Your task to perform on an android device: Open calendar and show me the third week of next month Image 0: 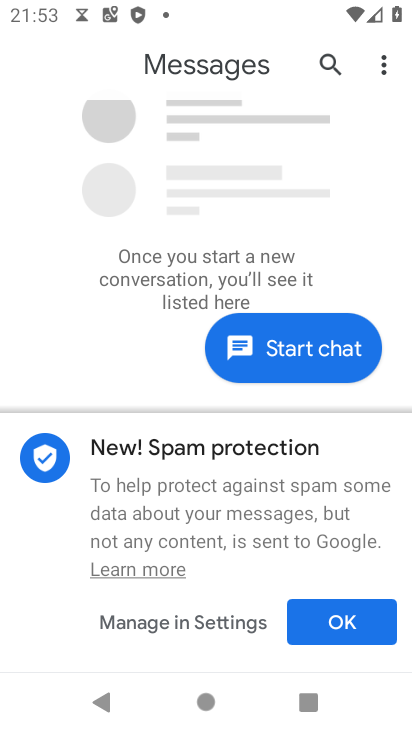
Step 0: press home button
Your task to perform on an android device: Open calendar and show me the third week of next month Image 1: 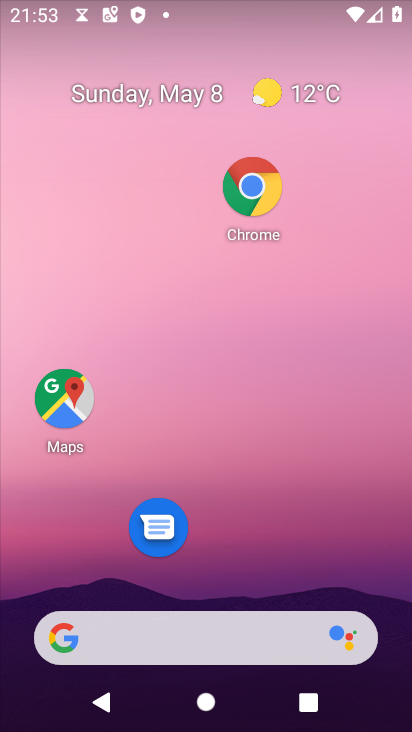
Step 1: drag from (321, 321) to (339, 191)
Your task to perform on an android device: Open calendar and show me the third week of next month Image 2: 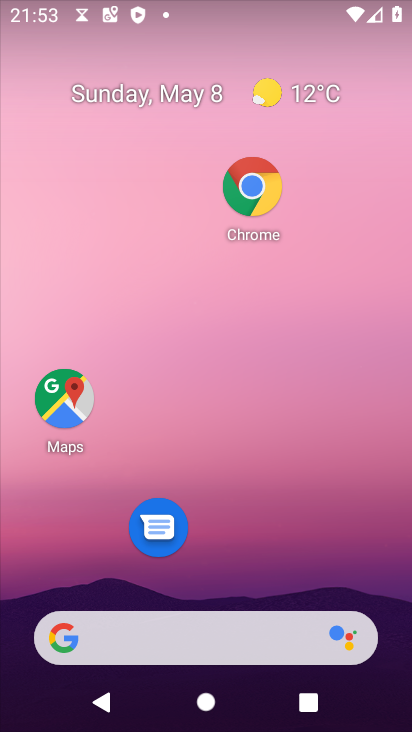
Step 2: drag from (283, 501) to (305, 199)
Your task to perform on an android device: Open calendar and show me the third week of next month Image 3: 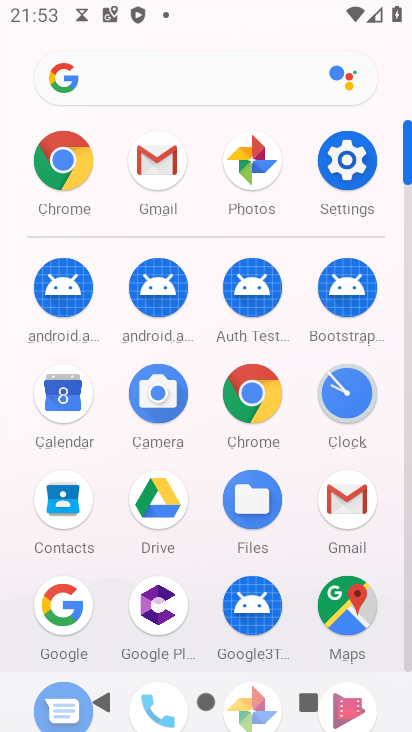
Step 3: click (70, 395)
Your task to perform on an android device: Open calendar and show me the third week of next month Image 4: 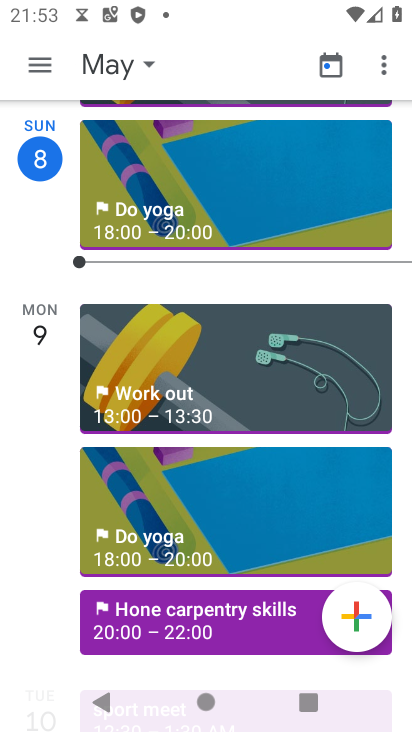
Step 4: click (37, 58)
Your task to perform on an android device: Open calendar and show me the third week of next month Image 5: 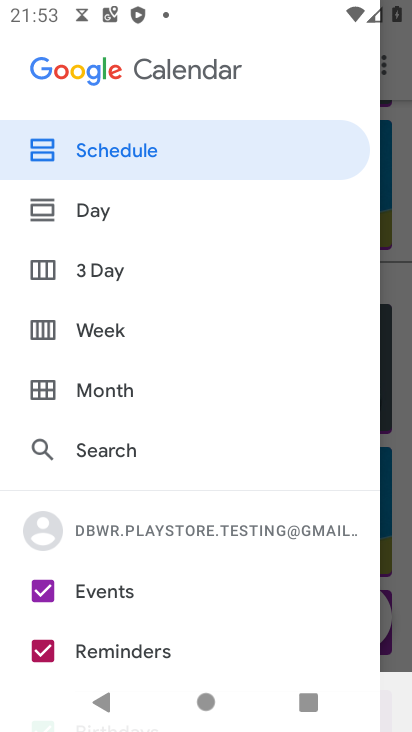
Step 5: click (99, 384)
Your task to perform on an android device: Open calendar and show me the third week of next month Image 6: 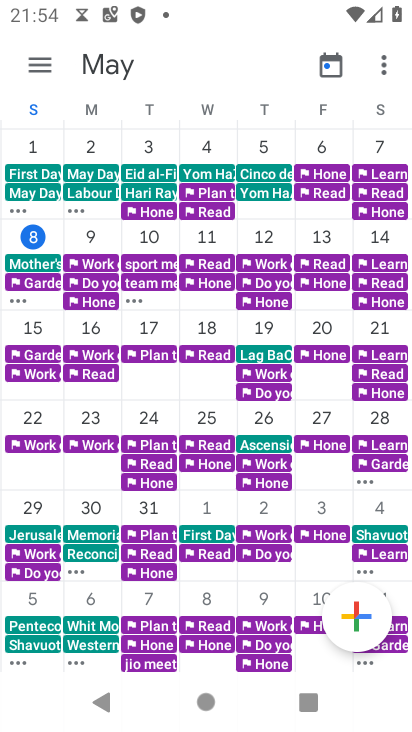
Step 6: click (34, 335)
Your task to perform on an android device: Open calendar and show me the third week of next month Image 7: 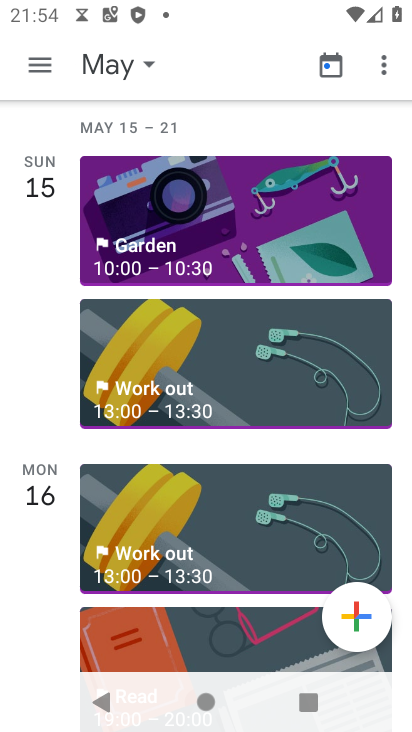
Step 7: click (33, 63)
Your task to perform on an android device: Open calendar and show me the third week of next month Image 8: 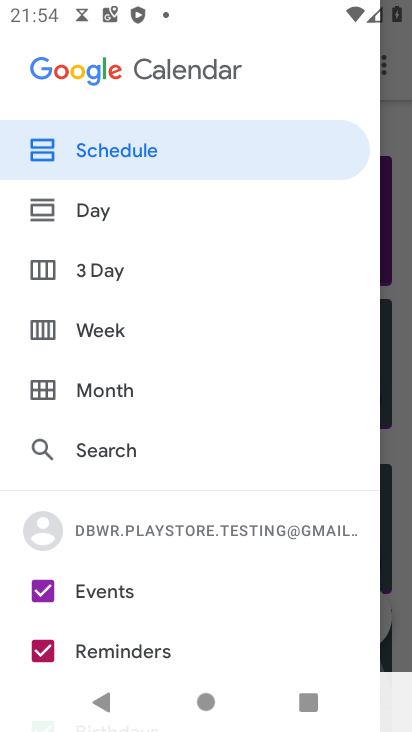
Step 8: click (83, 389)
Your task to perform on an android device: Open calendar and show me the third week of next month Image 9: 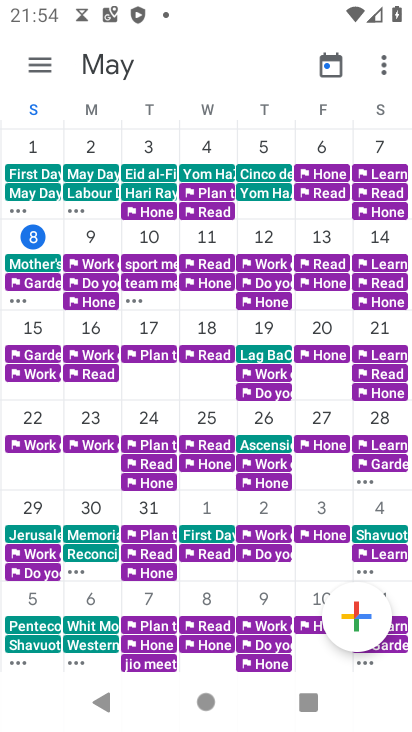
Step 9: task complete